Your task to perform on an android device: Open internet settings Image 0: 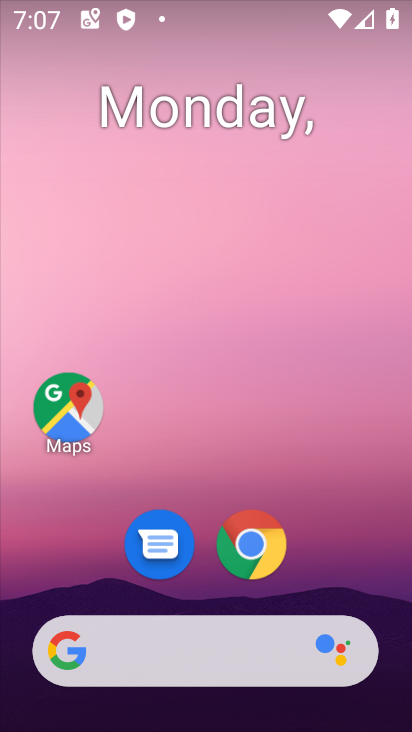
Step 0: drag from (320, 552) to (317, 139)
Your task to perform on an android device: Open internet settings Image 1: 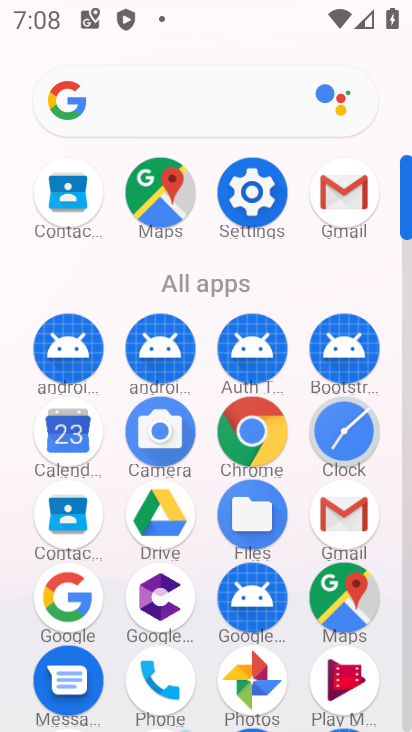
Step 1: click (245, 191)
Your task to perform on an android device: Open internet settings Image 2: 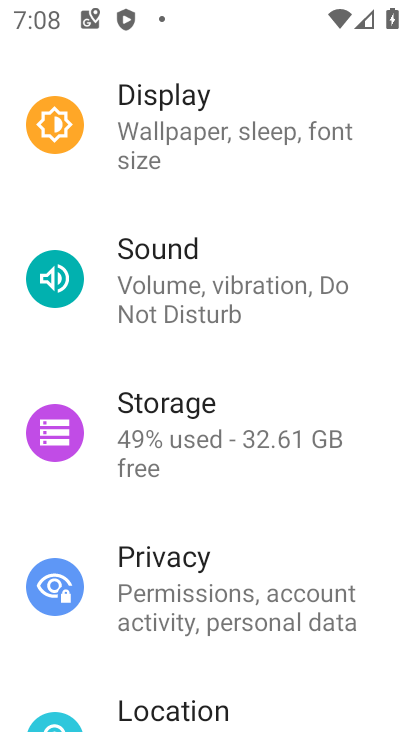
Step 2: drag from (209, 185) to (198, 448)
Your task to perform on an android device: Open internet settings Image 3: 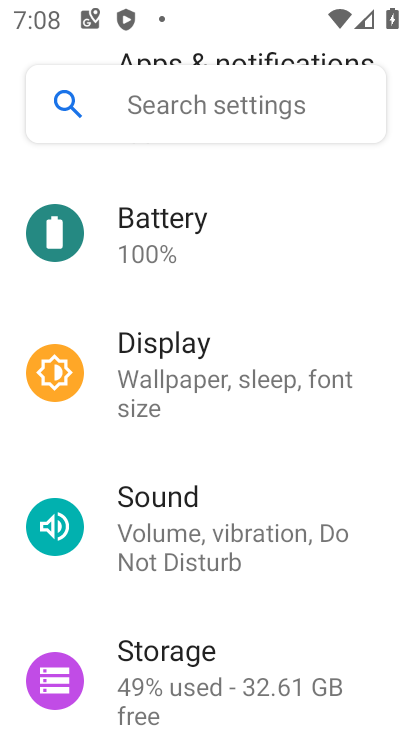
Step 3: drag from (198, 448) to (214, 333)
Your task to perform on an android device: Open internet settings Image 4: 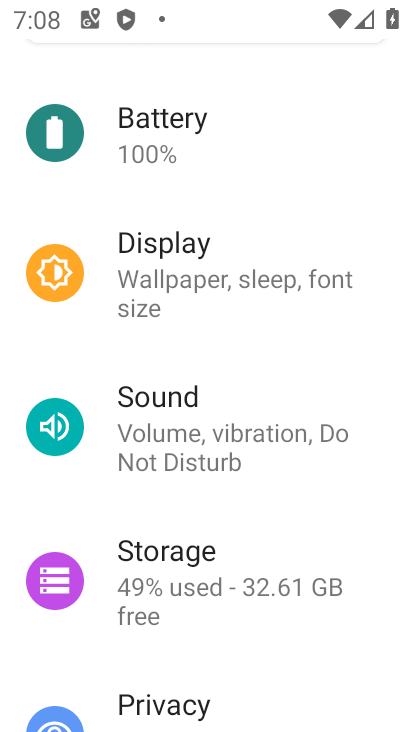
Step 4: drag from (228, 342) to (176, 683)
Your task to perform on an android device: Open internet settings Image 5: 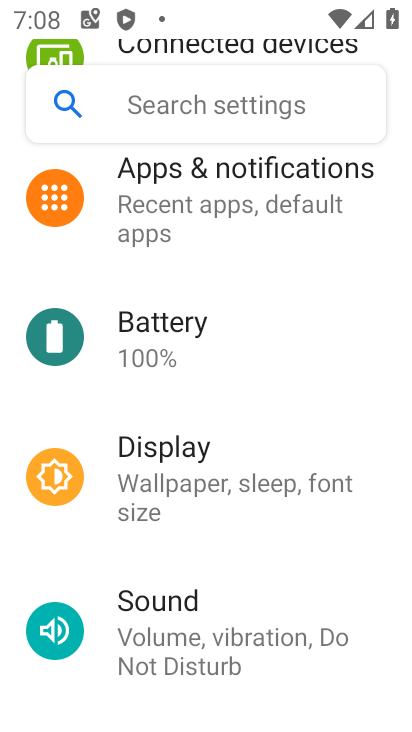
Step 5: drag from (226, 253) to (179, 602)
Your task to perform on an android device: Open internet settings Image 6: 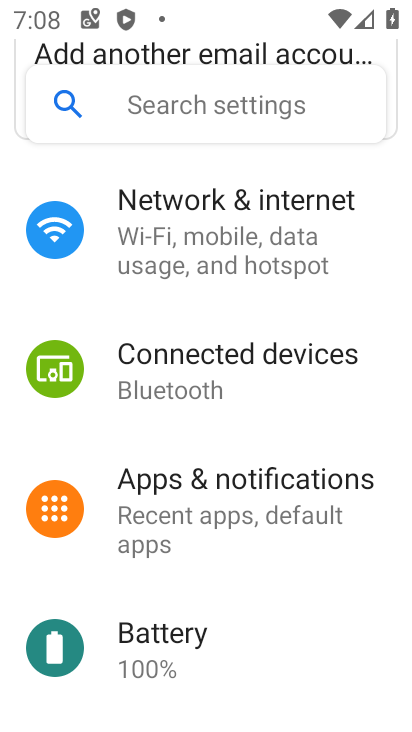
Step 6: drag from (197, 408) to (204, 660)
Your task to perform on an android device: Open internet settings Image 7: 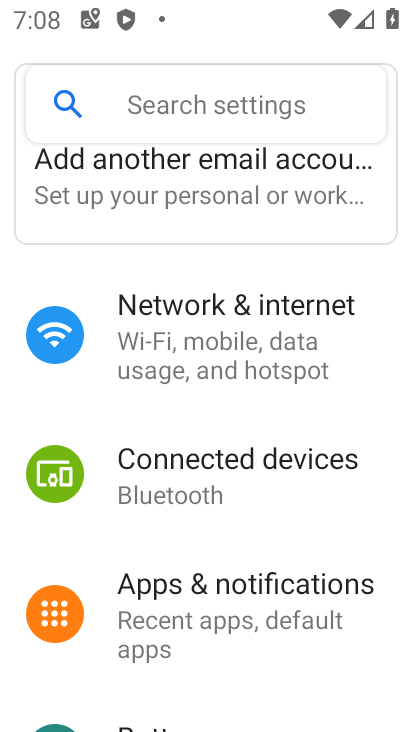
Step 7: click (193, 309)
Your task to perform on an android device: Open internet settings Image 8: 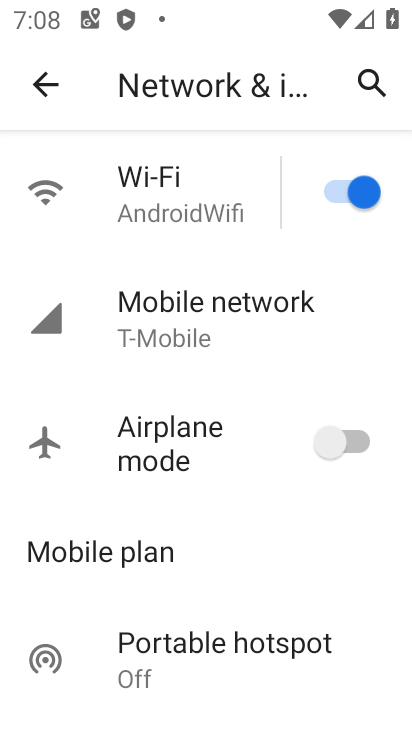
Step 8: click (200, 288)
Your task to perform on an android device: Open internet settings Image 9: 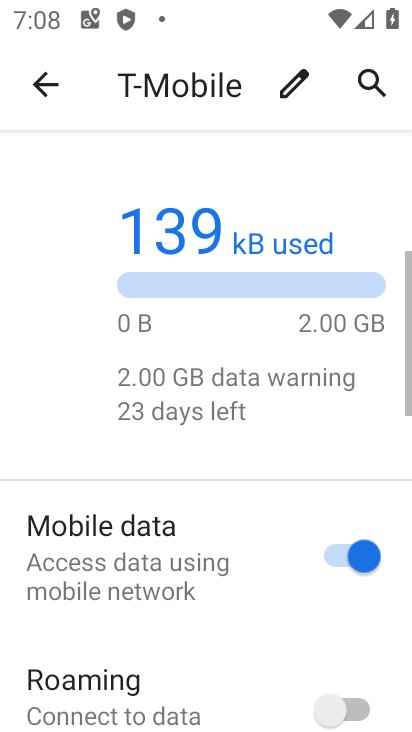
Step 9: task complete